Your task to perform on an android device: What's the weather going to be this weekend? Image 0: 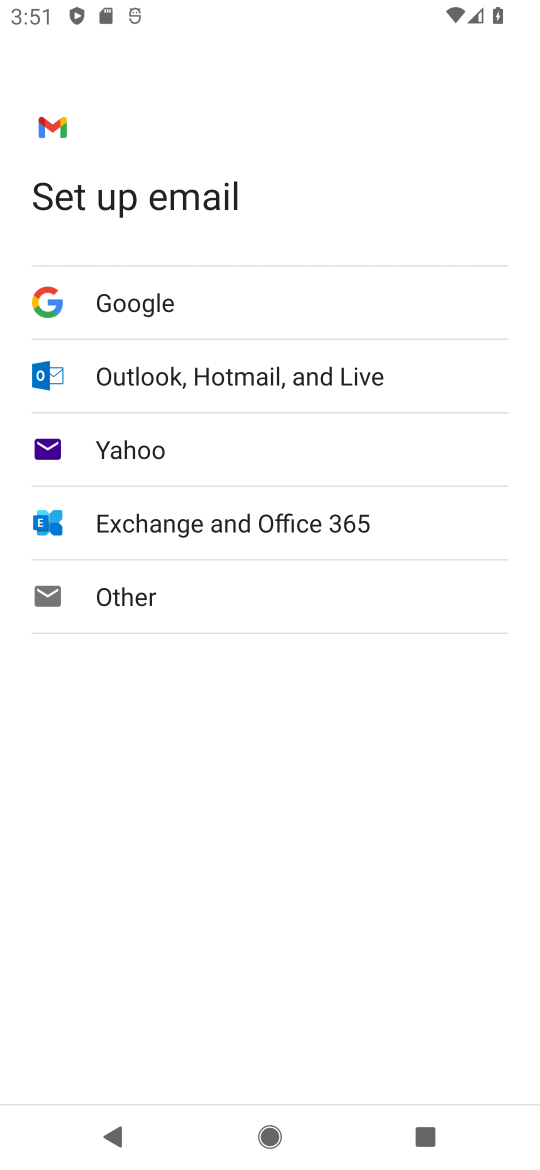
Step 0: press home button
Your task to perform on an android device: What's the weather going to be this weekend? Image 1: 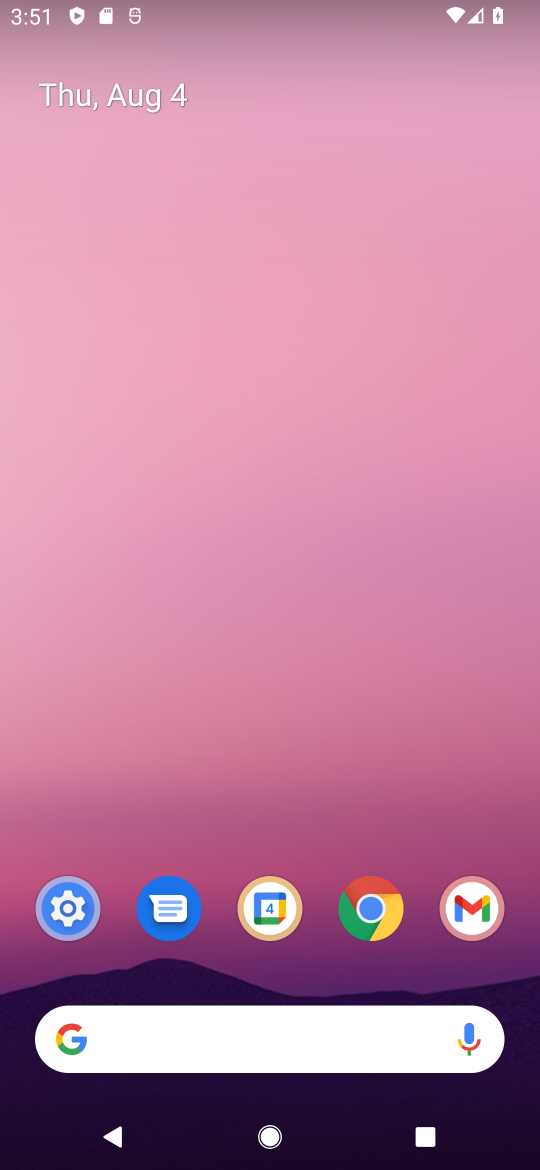
Step 1: click (279, 1030)
Your task to perform on an android device: What's the weather going to be this weekend? Image 2: 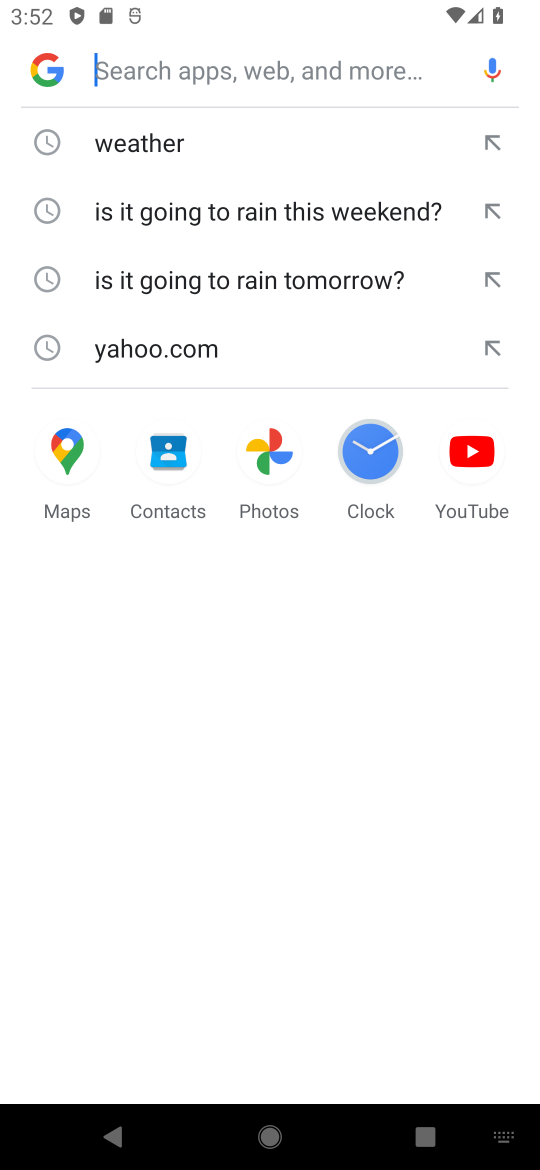
Step 2: type "what's the weather going to be this weekend"
Your task to perform on an android device: What's the weather going to be this weekend? Image 3: 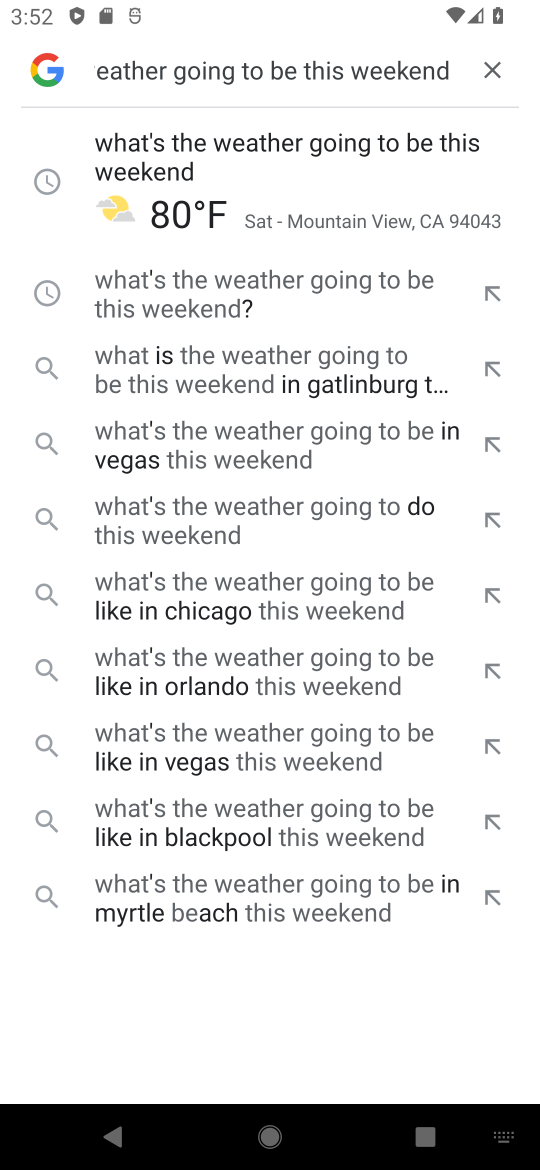
Step 3: click (304, 147)
Your task to perform on an android device: What's the weather going to be this weekend? Image 4: 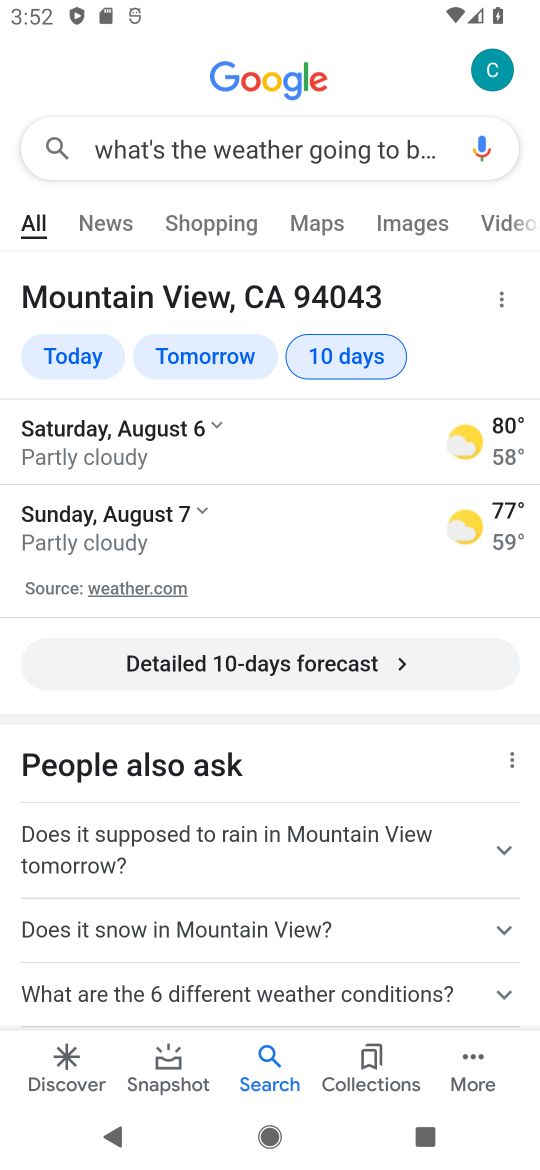
Step 4: task complete